Your task to perform on an android device: turn on the 12-hour format for clock Image 0: 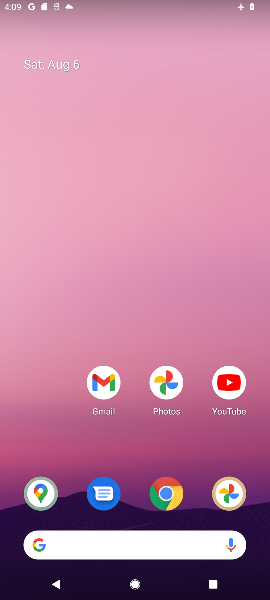
Step 0: drag from (150, 475) to (122, 203)
Your task to perform on an android device: turn on the 12-hour format for clock Image 1: 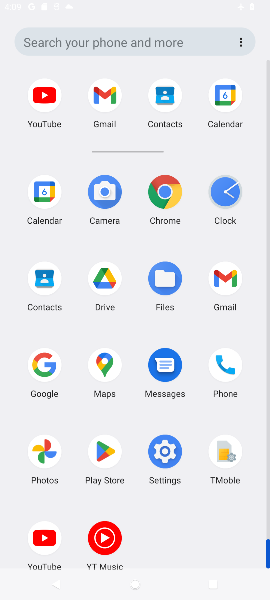
Step 1: drag from (141, 489) to (115, 197)
Your task to perform on an android device: turn on the 12-hour format for clock Image 2: 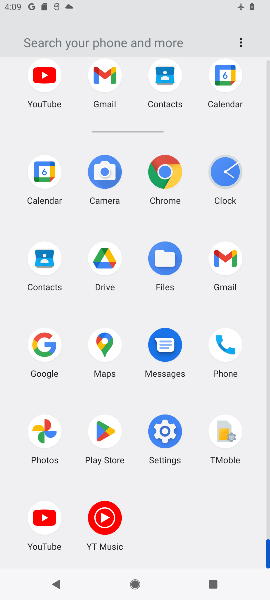
Step 2: click (228, 164)
Your task to perform on an android device: turn on the 12-hour format for clock Image 3: 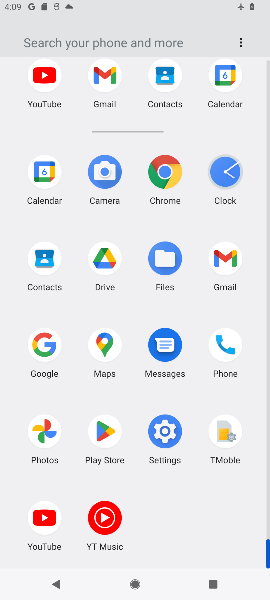
Step 3: click (228, 164)
Your task to perform on an android device: turn on the 12-hour format for clock Image 4: 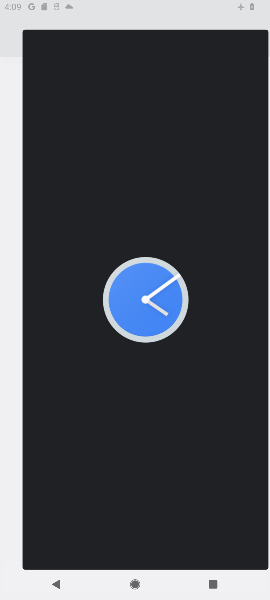
Step 4: click (227, 163)
Your task to perform on an android device: turn on the 12-hour format for clock Image 5: 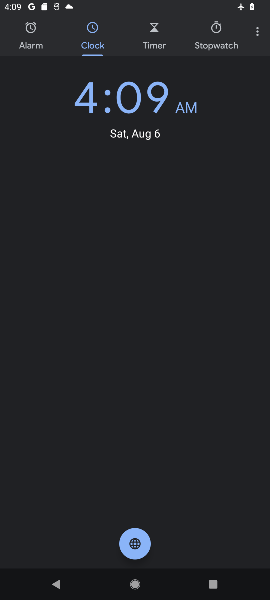
Step 5: click (263, 35)
Your task to perform on an android device: turn on the 12-hour format for clock Image 6: 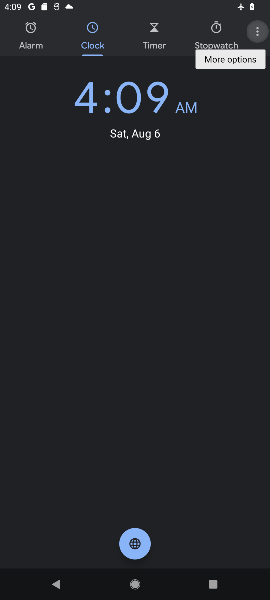
Step 6: click (256, 38)
Your task to perform on an android device: turn on the 12-hour format for clock Image 7: 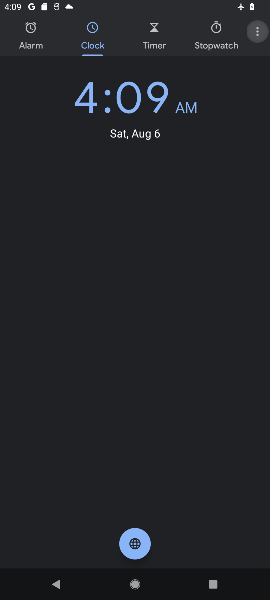
Step 7: click (255, 38)
Your task to perform on an android device: turn on the 12-hour format for clock Image 8: 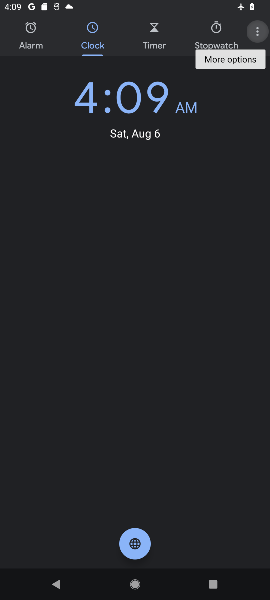
Step 8: click (255, 38)
Your task to perform on an android device: turn on the 12-hour format for clock Image 9: 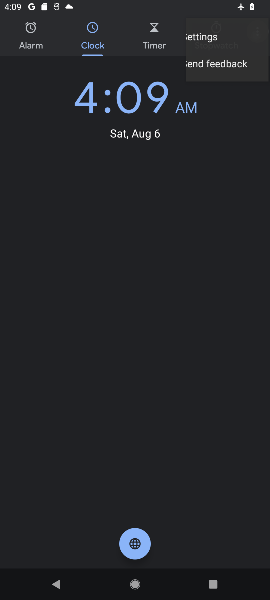
Step 9: click (252, 39)
Your task to perform on an android device: turn on the 12-hour format for clock Image 10: 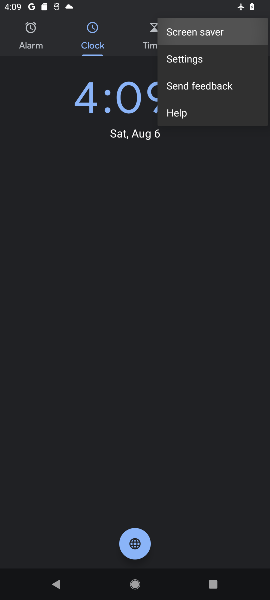
Step 10: click (208, 63)
Your task to perform on an android device: turn on the 12-hour format for clock Image 11: 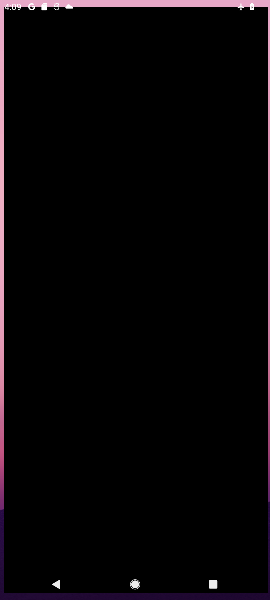
Step 11: click (203, 66)
Your task to perform on an android device: turn on the 12-hour format for clock Image 12: 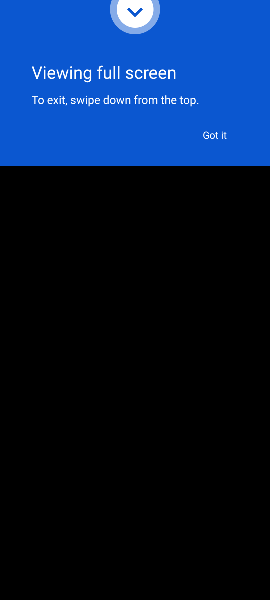
Step 12: click (214, 124)
Your task to perform on an android device: turn on the 12-hour format for clock Image 13: 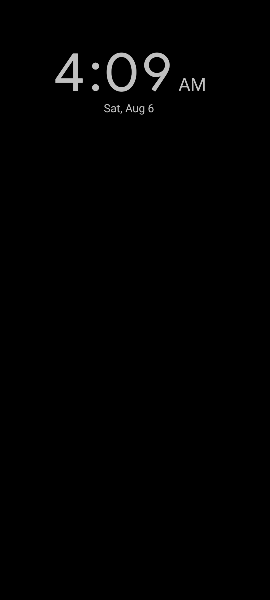
Step 13: press back button
Your task to perform on an android device: turn on the 12-hour format for clock Image 14: 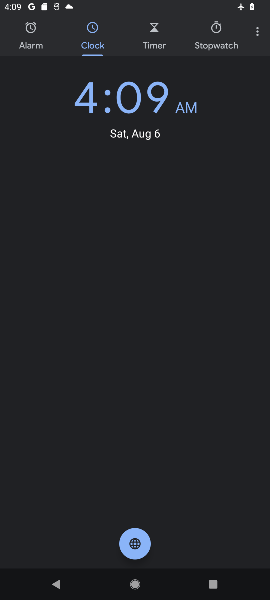
Step 14: drag from (259, 31) to (141, 506)
Your task to perform on an android device: turn on the 12-hour format for clock Image 15: 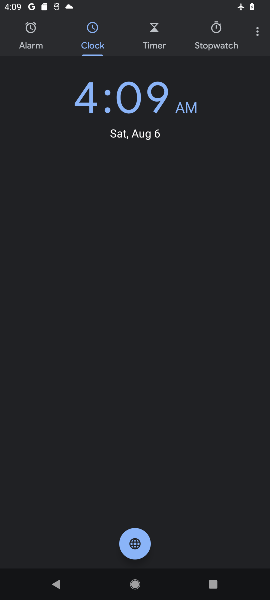
Step 15: click (186, 63)
Your task to perform on an android device: turn on the 12-hour format for clock Image 16: 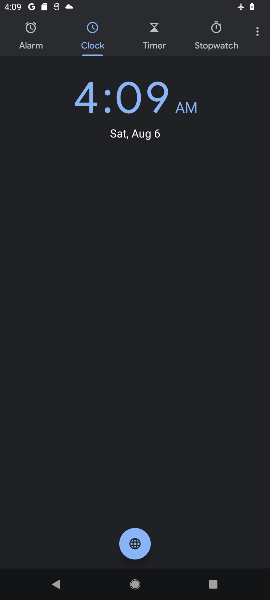
Step 16: click (255, 35)
Your task to perform on an android device: turn on the 12-hour format for clock Image 17: 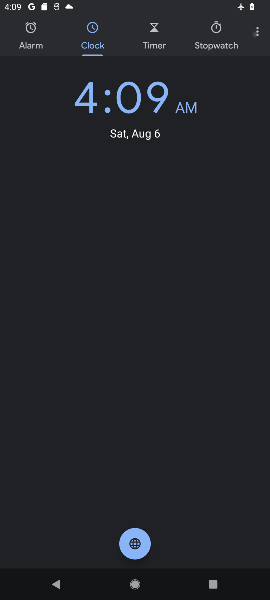
Step 17: click (256, 35)
Your task to perform on an android device: turn on the 12-hour format for clock Image 18: 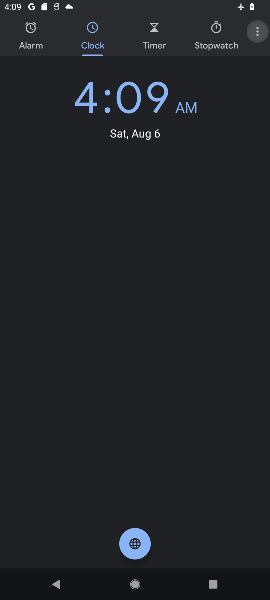
Step 18: click (256, 35)
Your task to perform on an android device: turn on the 12-hour format for clock Image 19: 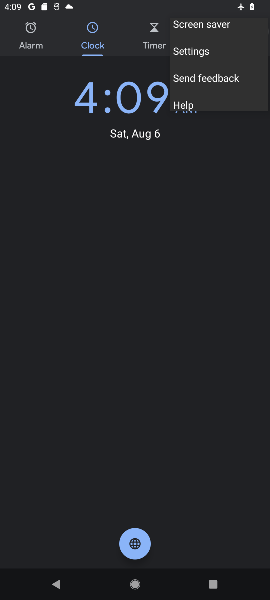
Step 19: click (256, 36)
Your task to perform on an android device: turn on the 12-hour format for clock Image 20: 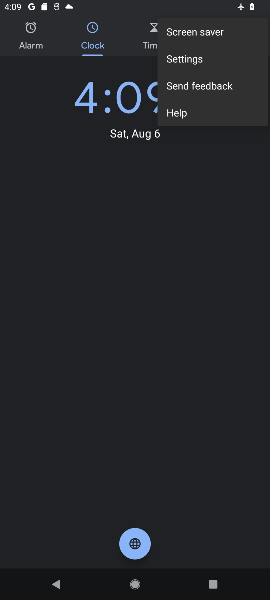
Step 20: click (256, 36)
Your task to perform on an android device: turn on the 12-hour format for clock Image 21: 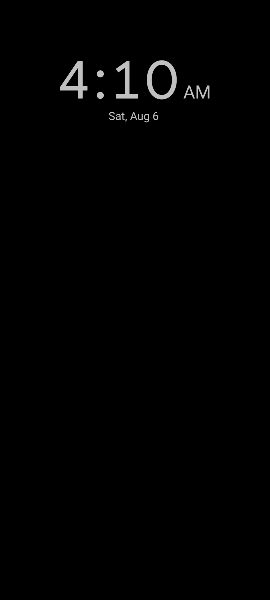
Step 21: press back button
Your task to perform on an android device: turn on the 12-hour format for clock Image 22: 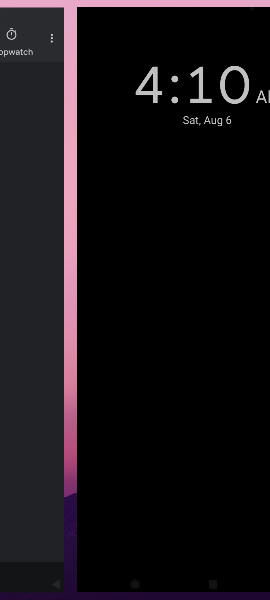
Step 22: press back button
Your task to perform on an android device: turn on the 12-hour format for clock Image 23: 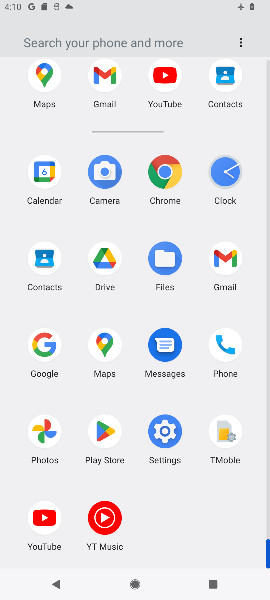
Step 23: click (242, 42)
Your task to perform on an android device: turn on the 12-hour format for clock Image 24: 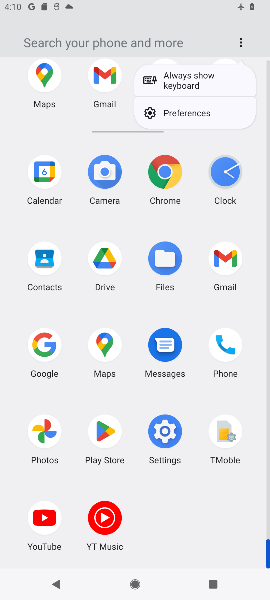
Step 24: click (251, 244)
Your task to perform on an android device: turn on the 12-hour format for clock Image 25: 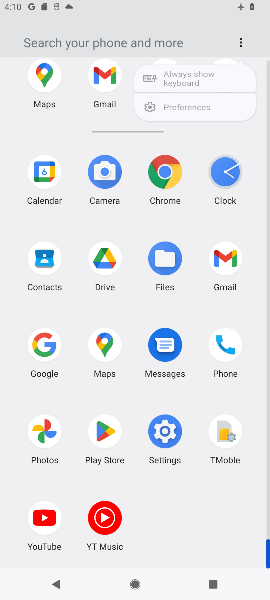
Step 25: click (251, 244)
Your task to perform on an android device: turn on the 12-hour format for clock Image 26: 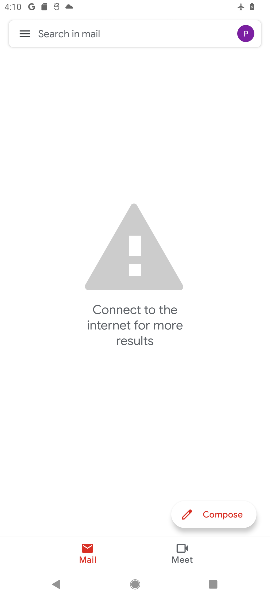
Step 26: press back button
Your task to perform on an android device: turn on the 12-hour format for clock Image 27: 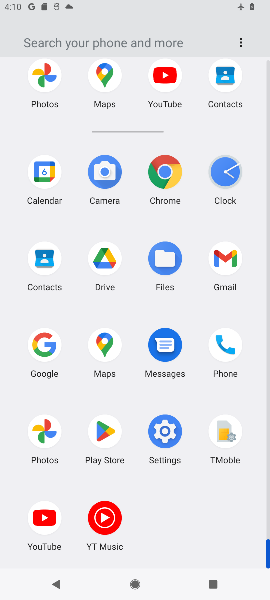
Step 27: drag from (240, 39) to (109, 493)
Your task to perform on an android device: turn on the 12-hour format for clock Image 28: 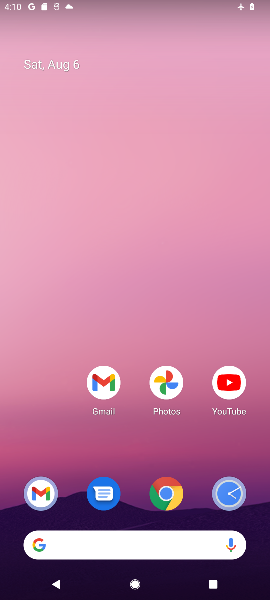
Step 28: drag from (129, 490) to (99, 44)
Your task to perform on an android device: turn on the 12-hour format for clock Image 29: 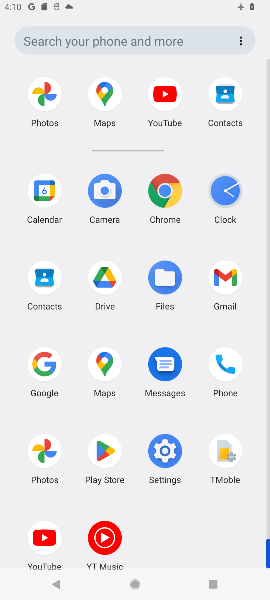
Step 29: drag from (114, 426) to (101, 26)
Your task to perform on an android device: turn on the 12-hour format for clock Image 30: 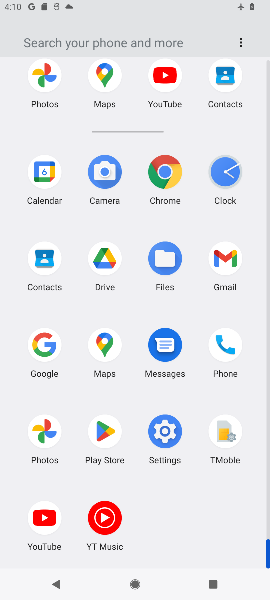
Step 30: click (223, 172)
Your task to perform on an android device: turn on the 12-hour format for clock Image 31: 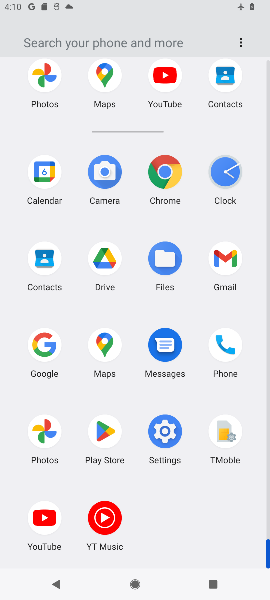
Step 31: click (223, 172)
Your task to perform on an android device: turn on the 12-hour format for clock Image 32: 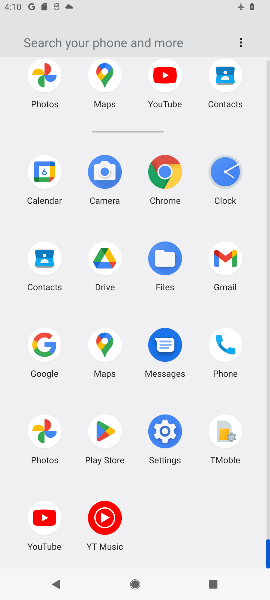
Step 32: click (223, 172)
Your task to perform on an android device: turn on the 12-hour format for clock Image 33: 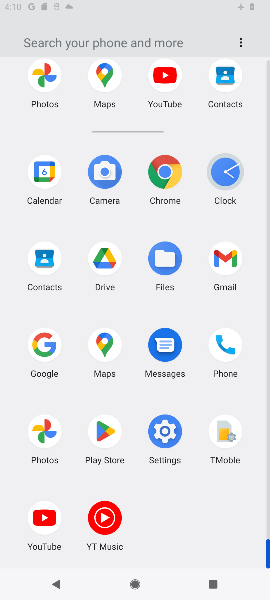
Step 33: click (223, 172)
Your task to perform on an android device: turn on the 12-hour format for clock Image 34: 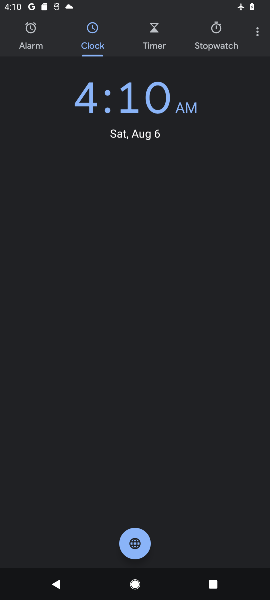
Step 34: click (223, 172)
Your task to perform on an android device: turn on the 12-hour format for clock Image 35: 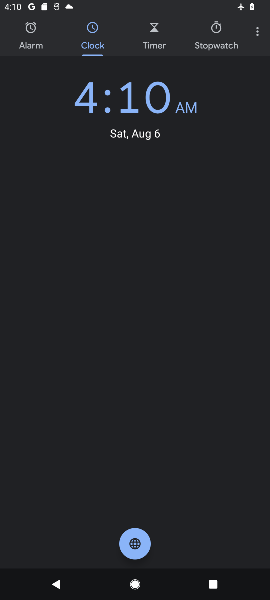
Step 35: click (223, 172)
Your task to perform on an android device: turn on the 12-hour format for clock Image 36: 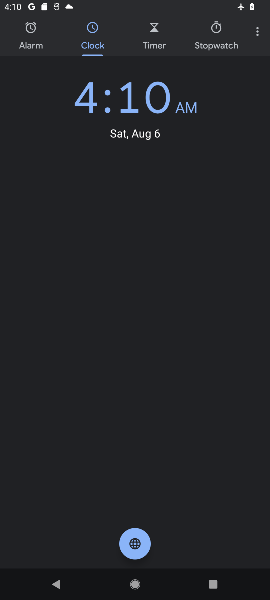
Step 36: drag from (257, 35) to (181, 490)
Your task to perform on an android device: turn on the 12-hour format for clock Image 37: 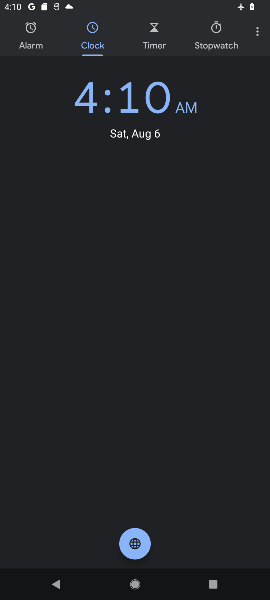
Step 37: click (174, 58)
Your task to perform on an android device: turn on the 12-hour format for clock Image 38: 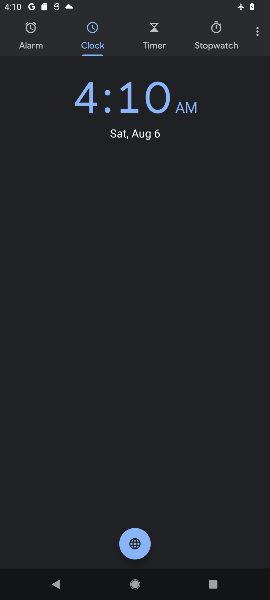
Step 38: click (174, 58)
Your task to perform on an android device: turn on the 12-hour format for clock Image 39: 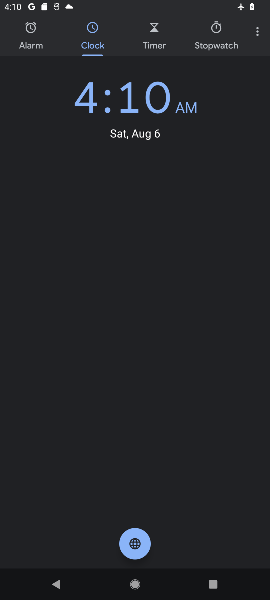
Step 39: click (174, 58)
Your task to perform on an android device: turn on the 12-hour format for clock Image 40: 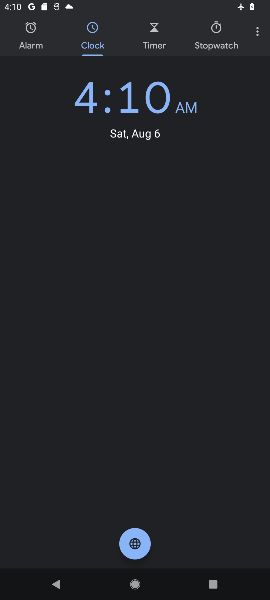
Step 40: click (251, 31)
Your task to perform on an android device: turn on the 12-hour format for clock Image 41: 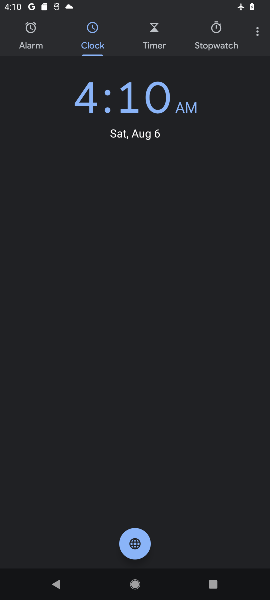
Step 41: click (251, 31)
Your task to perform on an android device: turn on the 12-hour format for clock Image 42: 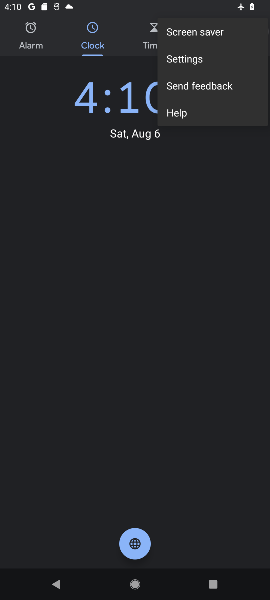
Step 42: click (251, 31)
Your task to perform on an android device: turn on the 12-hour format for clock Image 43: 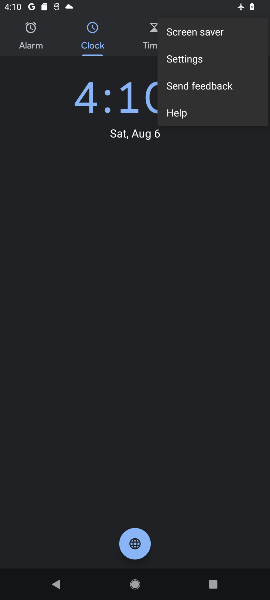
Step 43: click (195, 51)
Your task to perform on an android device: turn on the 12-hour format for clock Image 44: 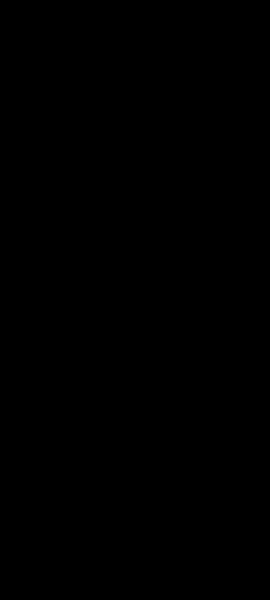
Step 44: click (187, 57)
Your task to perform on an android device: turn on the 12-hour format for clock Image 45: 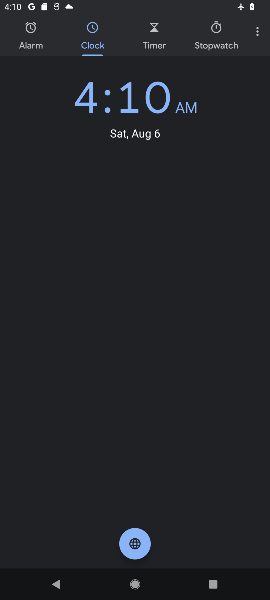
Step 45: click (259, 35)
Your task to perform on an android device: turn on the 12-hour format for clock Image 46: 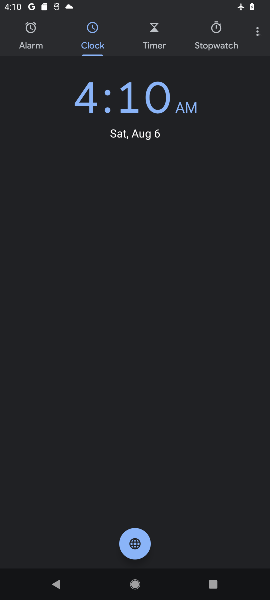
Step 46: click (257, 34)
Your task to perform on an android device: turn on the 12-hour format for clock Image 47: 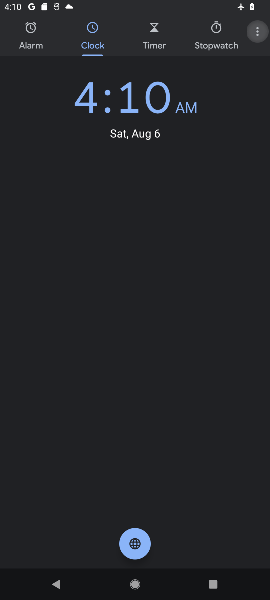
Step 47: click (257, 34)
Your task to perform on an android device: turn on the 12-hour format for clock Image 48: 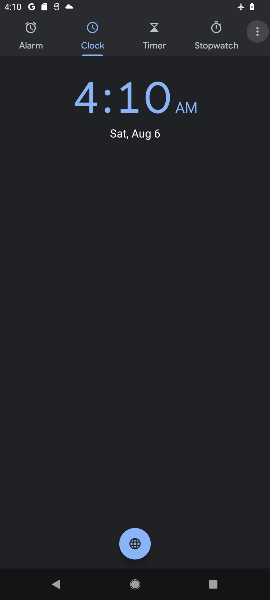
Step 48: click (257, 34)
Your task to perform on an android device: turn on the 12-hour format for clock Image 49: 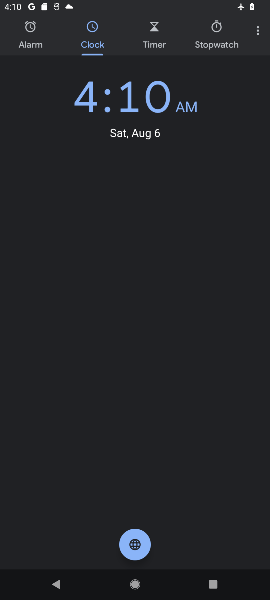
Step 49: click (188, 66)
Your task to perform on an android device: turn on the 12-hour format for clock Image 50: 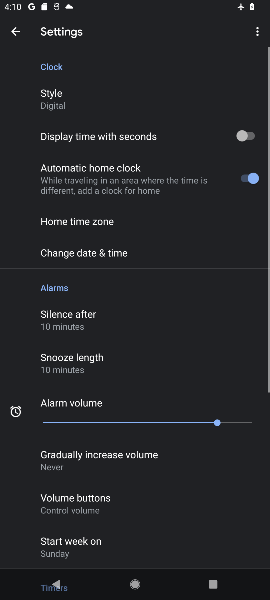
Step 50: click (183, 67)
Your task to perform on an android device: turn on the 12-hour format for clock Image 51: 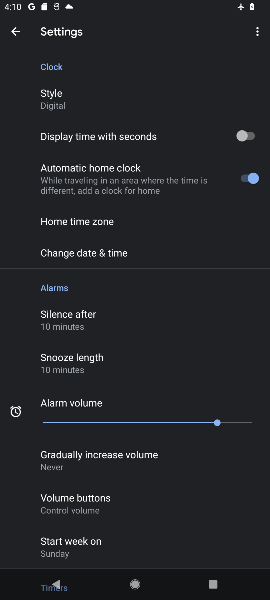
Step 51: drag from (125, 268) to (117, 172)
Your task to perform on an android device: turn on the 12-hour format for clock Image 52: 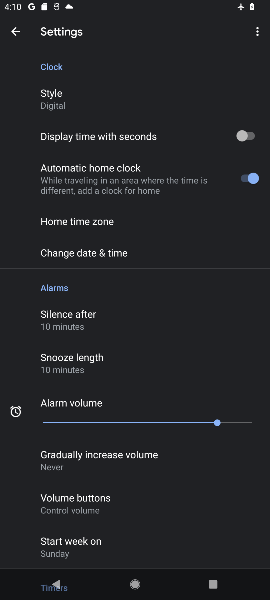
Step 52: drag from (137, 392) to (132, 289)
Your task to perform on an android device: turn on the 12-hour format for clock Image 53: 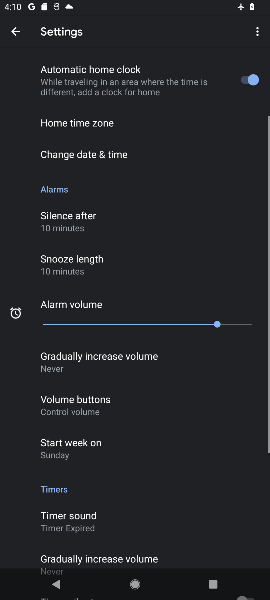
Step 53: drag from (179, 386) to (164, 199)
Your task to perform on an android device: turn on the 12-hour format for clock Image 54: 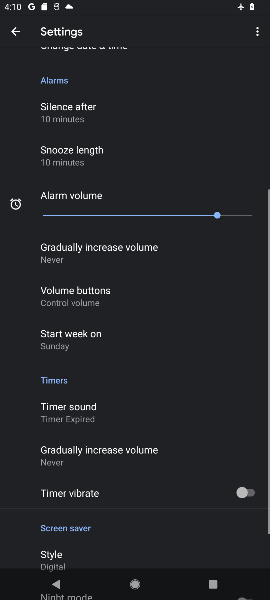
Step 54: drag from (150, 402) to (160, 227)
Your task to perform on an android device: turn on the 12-hour format for clock Image 55: 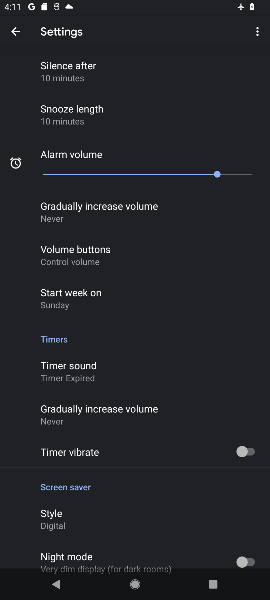
Step 55: drag from (92, 481) to (72, 255)
Your task to perform on an android device: turn on the 12-hour format for clock Image 56: 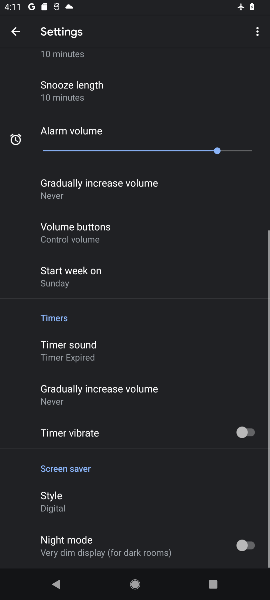
Step 56: drag from (139, 483) to (136, 246)
Your task to perform on an android device: turn on the 12-hour format for clock Image 57: 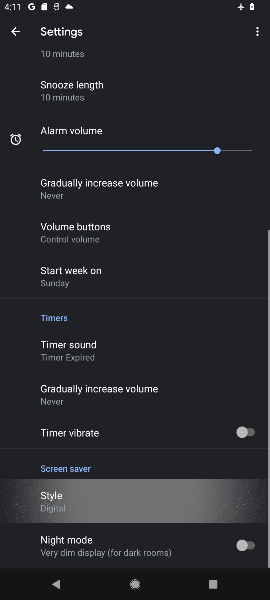
Step 57: drag from (158, 390) to (213, 219)
Your task to perform on an android device: turn on the 12-hour format for clock Image 58: 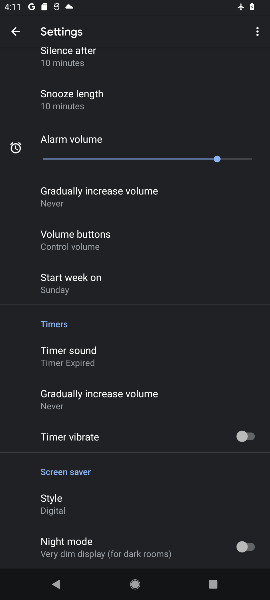
Step 58: drag from (129, 465) to (140, 217)
Your task to perform on an android device: turn on the 12-hour format for clock Image 59: 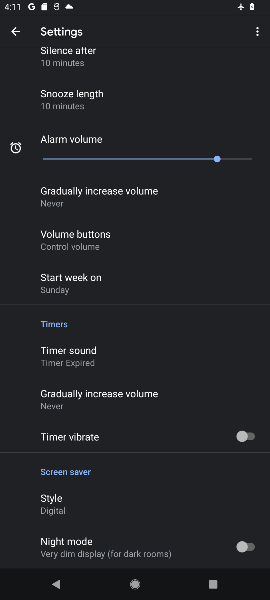
Step 59: drag from (105, 153) to (102, 417)
Your task to perform on an android device: turn on the 12-hour format for clock Image 60: 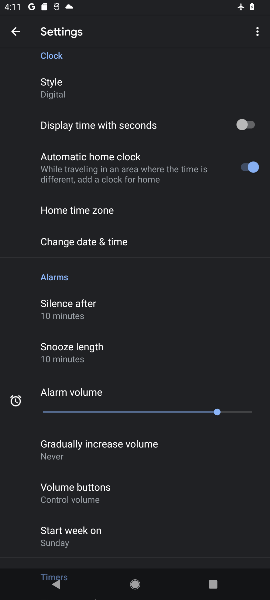
Step 60: click (105, 244)
Your task to perform on an android device: turn on the 12-hour format for clock Image 61: 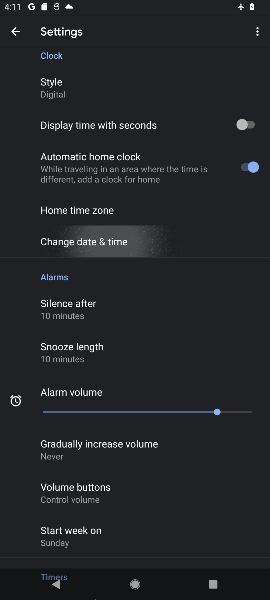
Step 61: click (107, 242)
Your task to perform on an android device: turn on the 12-hour format for clock Image 62: 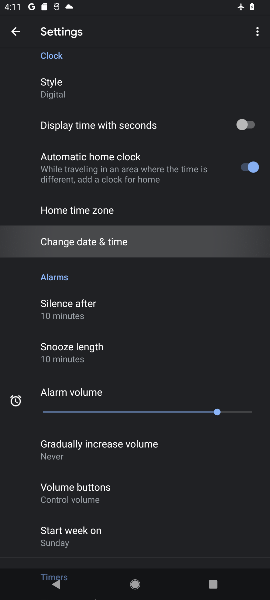
Step 62: click (107, 242)
Your task to perform on an android device: turn on the 12-hour format for clock Image 63: 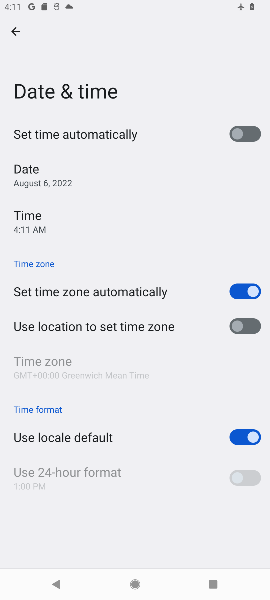
Step 63: click (249, 448)
Your task to perform on an android device: turn on the 12-hour format for clock Image 64: 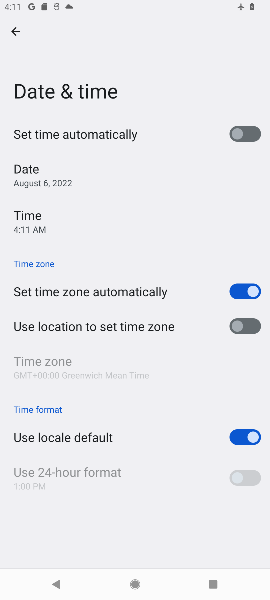
Step 64: click (251, 437)
Your task to perform on an android device: turn on the 12-hour format for clock Image 65: 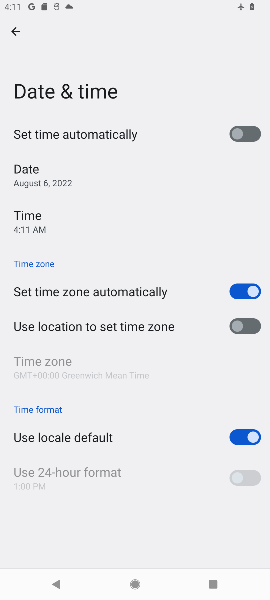
Step 65: click (232, 436)
Your task to perform on an android device: turn on the 12-hour format for clock Image 66: 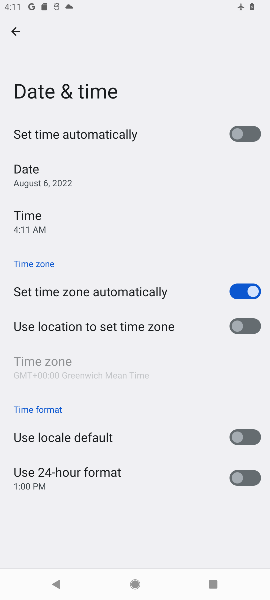
Step 66: click (232, 436)
Your task to perform on an android device: turn on the 12-hour format for clock Image 67: 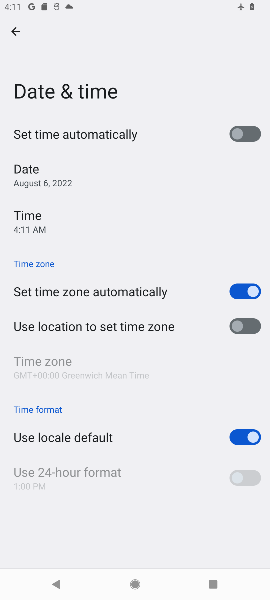
Step 67: task complete